Your task to perform on an android device: open app "Google News" Image 0: 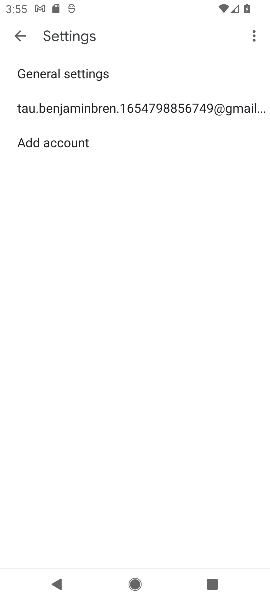
Step 0: press home button
Your task to perform on an android device: open app "Google News" Image 1: 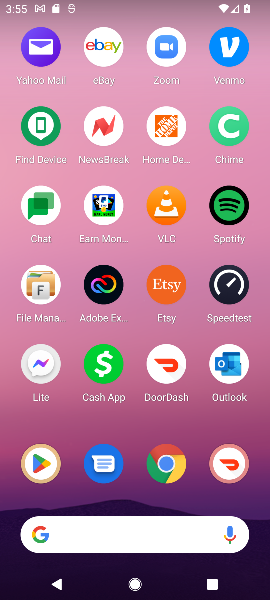
Step 1: press home button
Your task to perform on an android device: open app "Google News" Image 2: 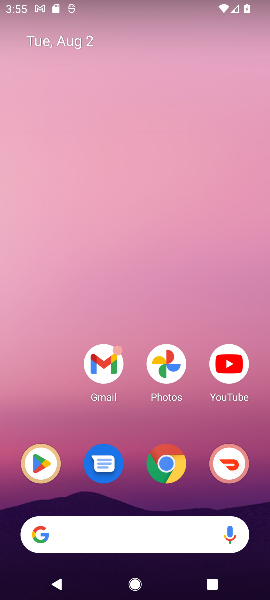
Step 2: click (39, 453)
Your task to perform on an android device: open app "Google News" Image 3: 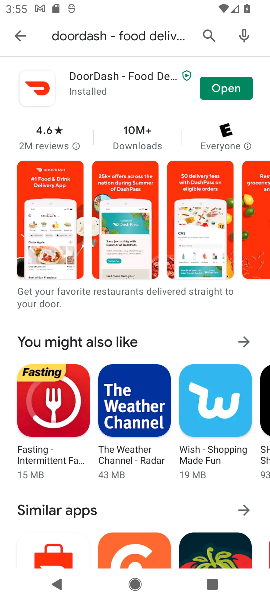
Step 3: click (208, 35)
Your task to perform on an android device: open app "Google News" Image 4: 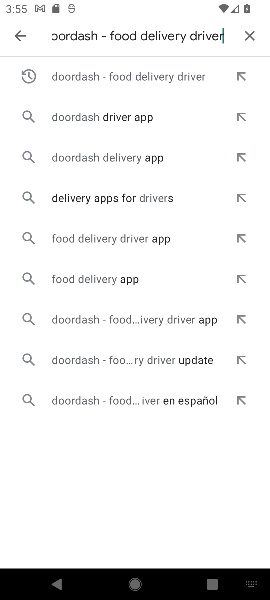
Step 4: click (251, 30)
Your task to perform on an android device: open app "Google News" Image 5: 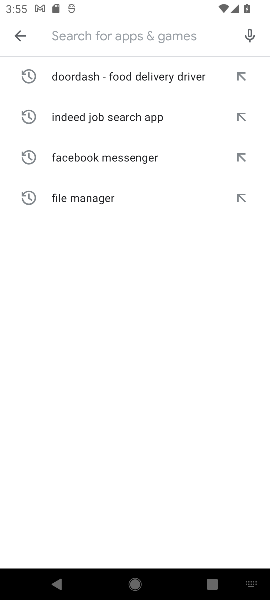
Step 5: type "Google News"
Your task to perform on an android device: open app "Google News" Image 6: 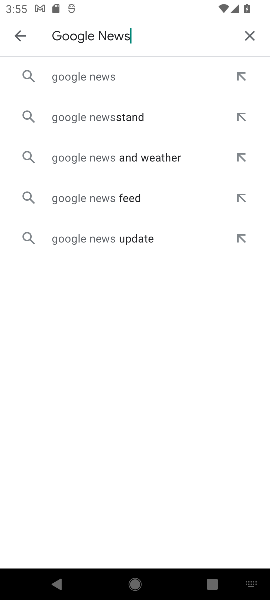
Step 6: click (102, 78)
Your task to perform on an android device: open app "Google News" Image 7: 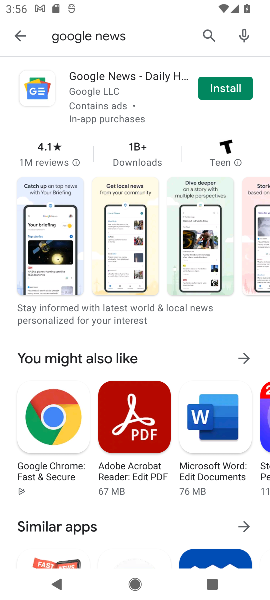
Step 7: task complete